Your task to perform on an android device: turn on bluetooth scan Image 0: 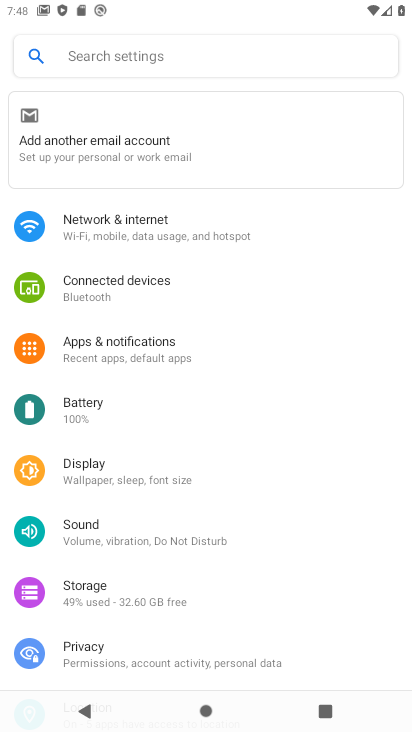
Step 0: press home button
Your task to perform on an android device: turn on bluetooth scan Image 1: 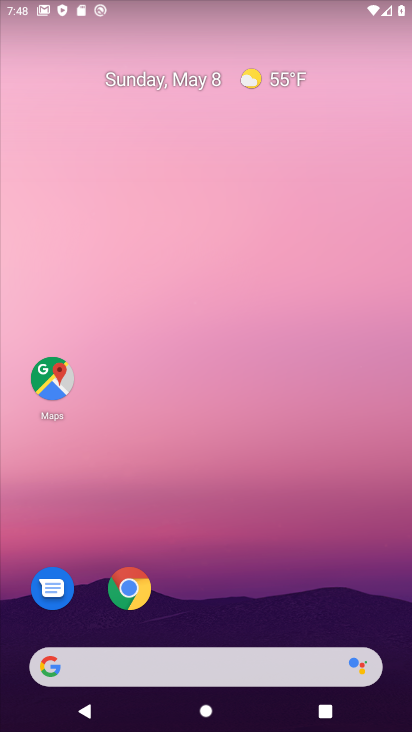
Step 1: drag from (345, 612) to (279, 45)
Your task to perform on an android device: turn on bluetooth scan Image 2: 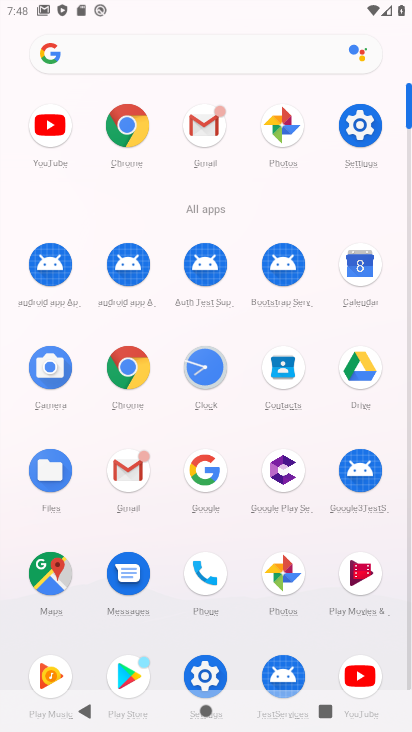
Step 2: click (352, 119)
Your task to perform on an android device: turn on bluetooth scan Image 3: 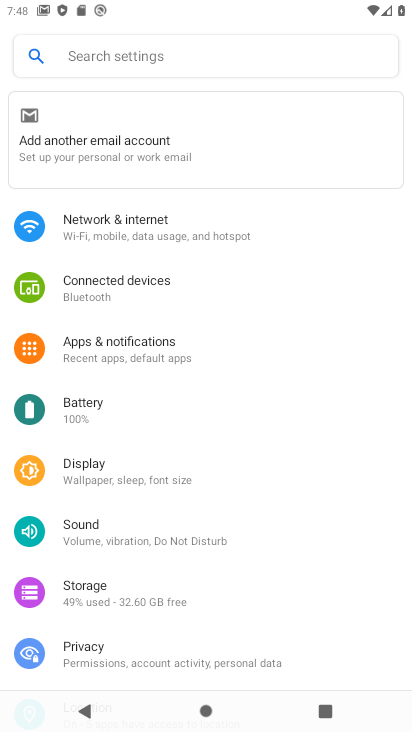
Step 3: drag from (121, 588) to (212, 179)
Your task to perform on an android device: turn on bluetooth scan Image 4: 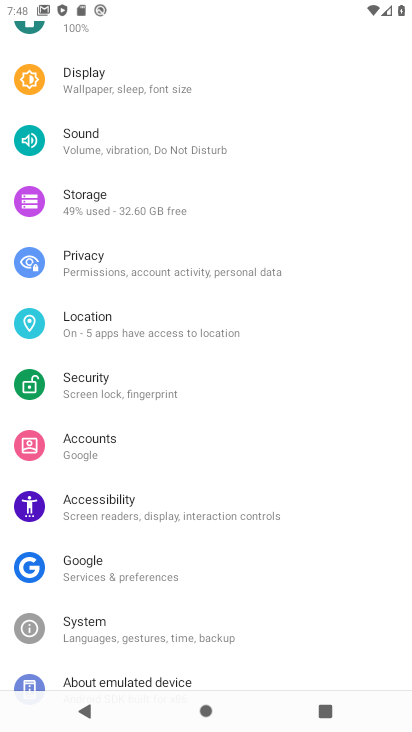
Step 4: click (122, 326)
Your task to perform on an android device: turn on bluetooth scan Image 5: 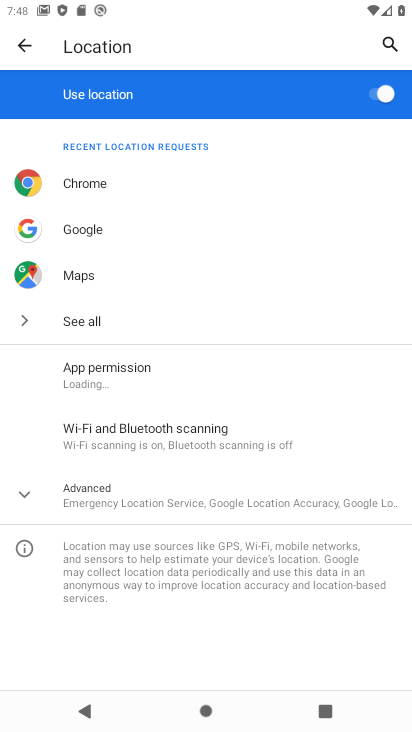
Step 5: click (162, 425)
Your task to perform on an android device: turn on bluetooth scan Image 6: 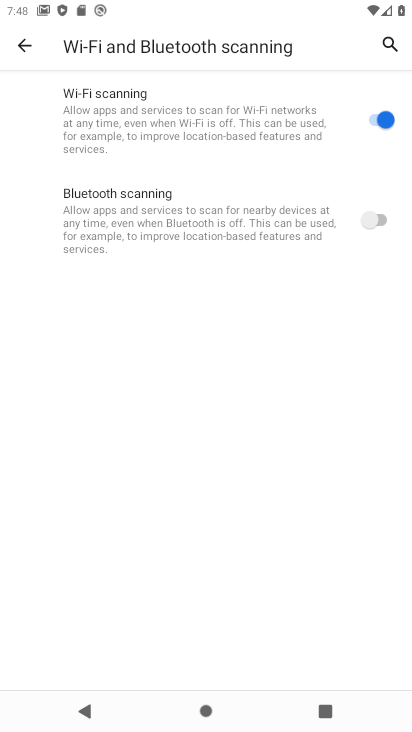
Step 6: click (316, 225)
Your task to perform on an android device: turn on bluetooth scan Image 7: 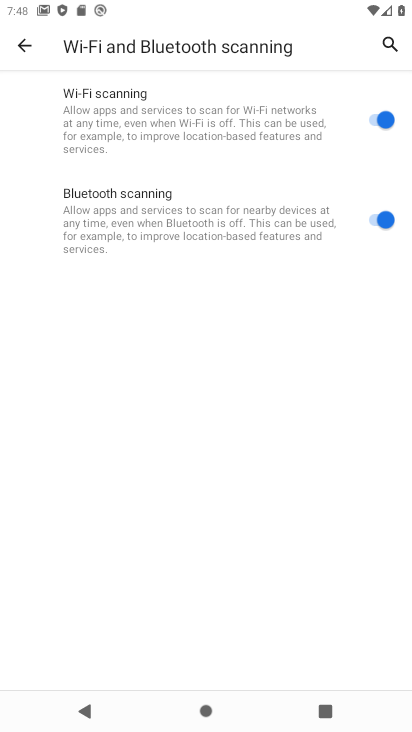
Step 7: task complete